Your task to perform on an android device: Go to accessibility settings Image 0: 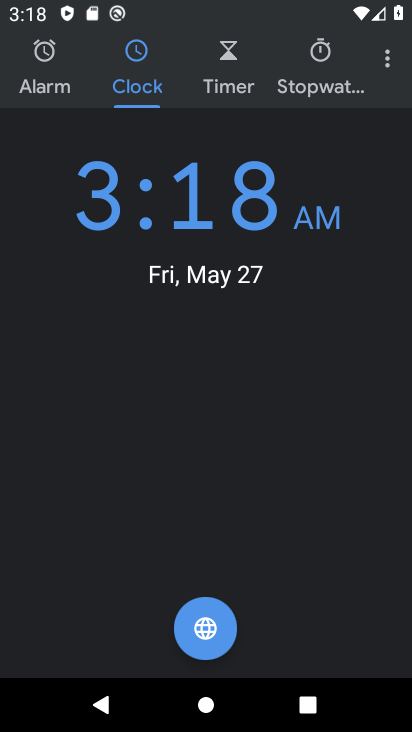
Step 0: press home button
Your task to perform on an android device: Go to accessibility settings Image 1: 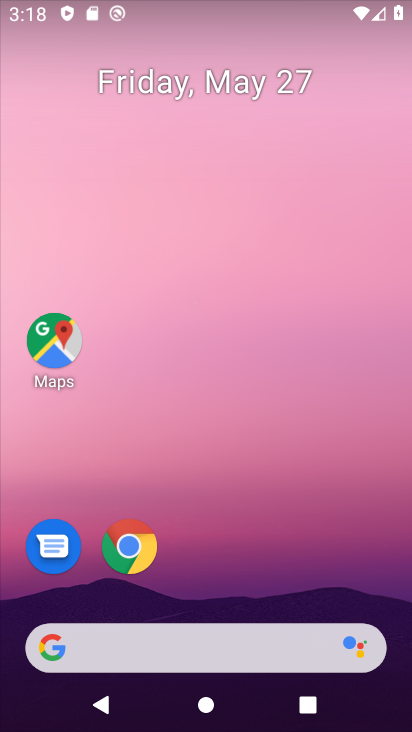
Step 1: drag from (187, 617) to (277, 125)
Your task to perform on an android device: Go to accessibility settings Image 2: 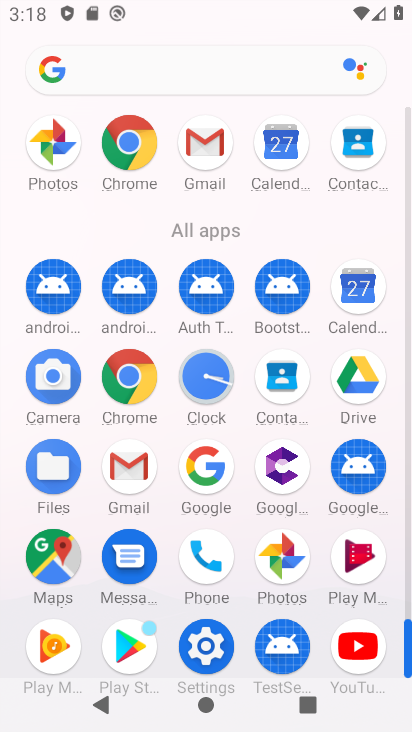
Step 2: drag from (208, 580) to (254, 373)
Your task to perform on an android device: Go to accessibility settings Image 3: 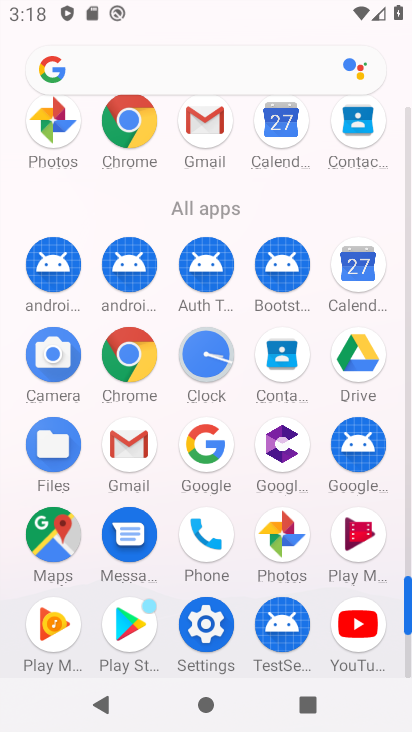
Step 3: click (211, 611)
Your task to perform on an android device: Go to accessibility settings Image 4: 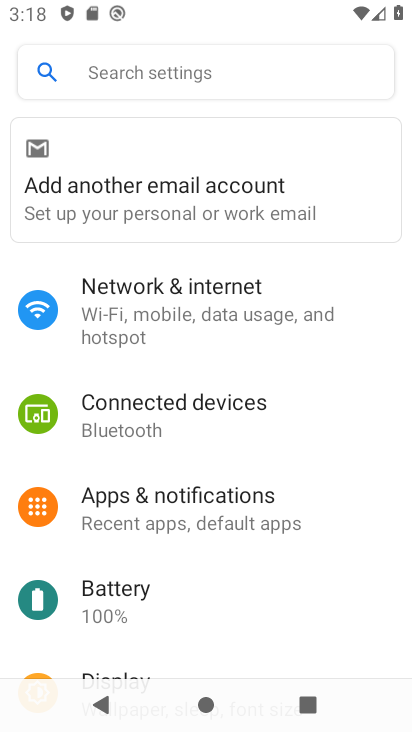
Step 4: drag from (163, 591) to (293, 211)
Your task to perform on an android device: Go to accessibility settings Image 5: 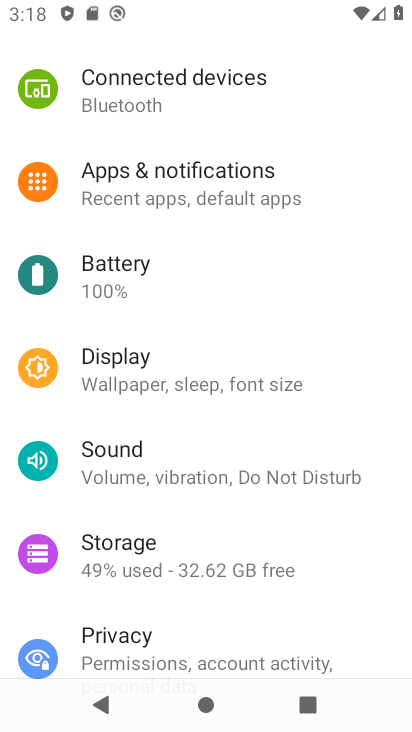
Step 5: drag from (224, 568) to (336, 155)
Your task to perform on an android device: Go to accessibility settings Image 6: 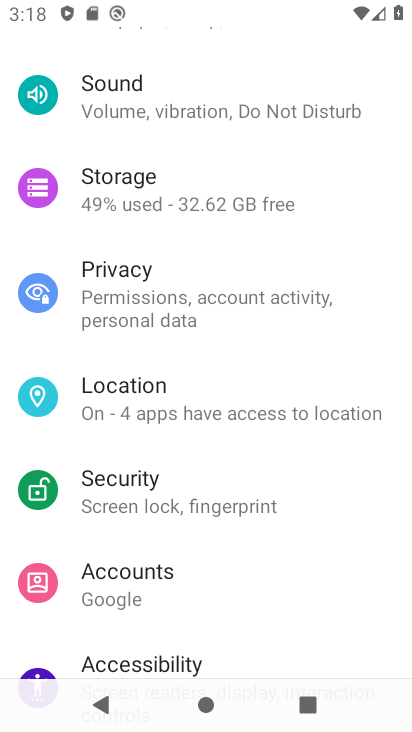
Step 6: drag from (154, 578) to (231, 349)
Your task to perform on an android device: Go to accessibility settings Image 7: 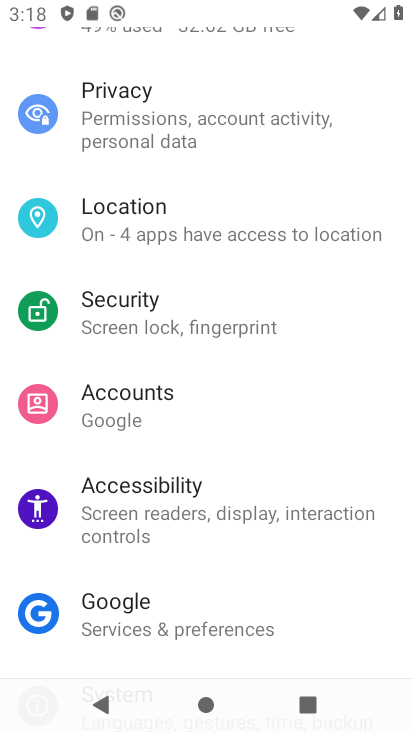
Step 7: click (195, 519)
Your task to perform on an android device: Go to accessibility settings Image 8: 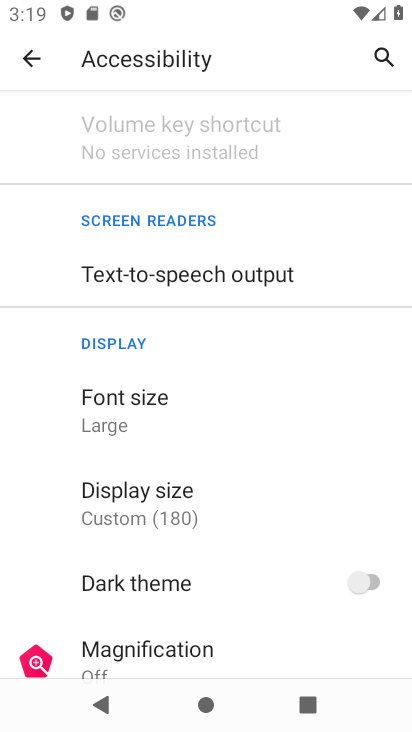
Step 8: task complete